Your task to perform on an android device: Do I have any events tomorrow? Image 0: 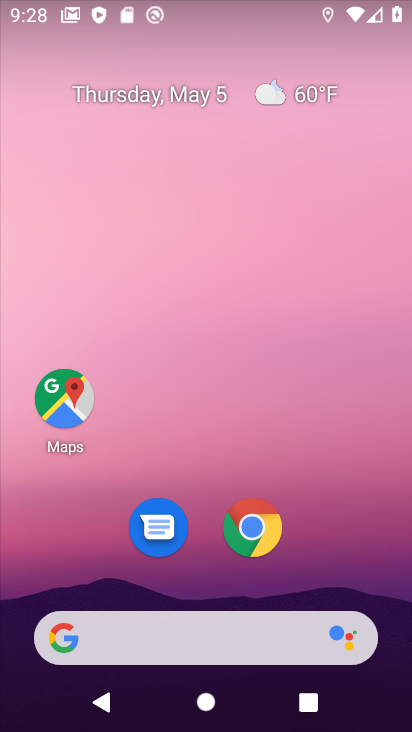
Step 0: press home button
Your task to perform on an android device: Do I have any events tomorrow? Image 1: 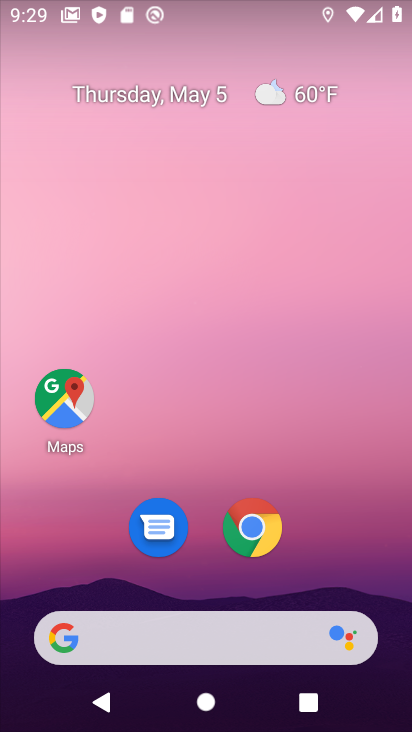
Step 1: drag from (397, 286) to (3, 313)
Your task to perform on an android device: Do I have any events tomorrow? Image 2: 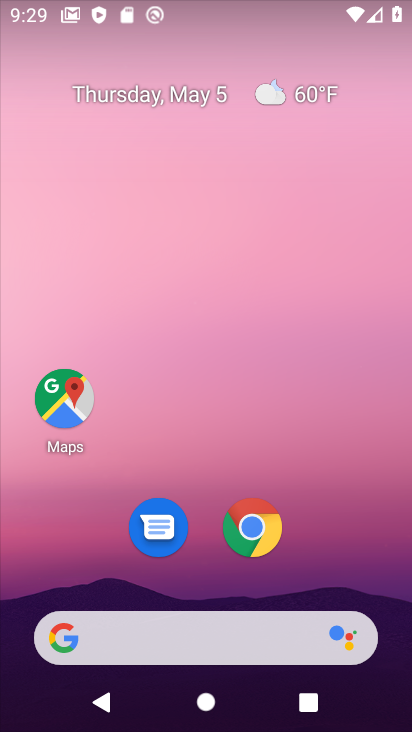
Step 2: drag from (206, 586) to (212, 37)
Your task to perform on an android device: Do I have any events tomorrow? Image 3: 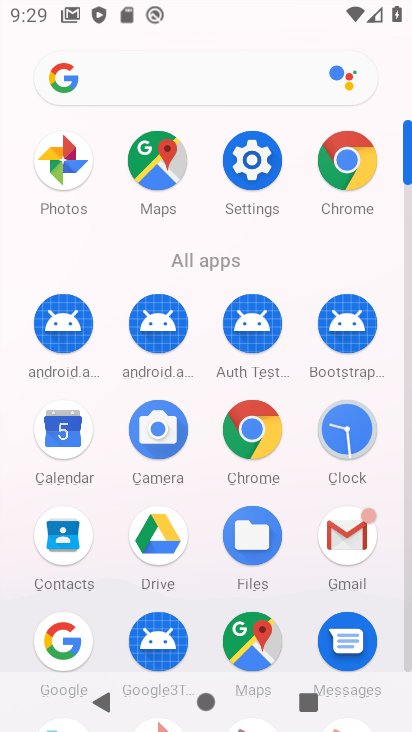
Step 3: click (61, 427)
Your task to perform on an android device: Do I have any events tomorrow? Image 4: 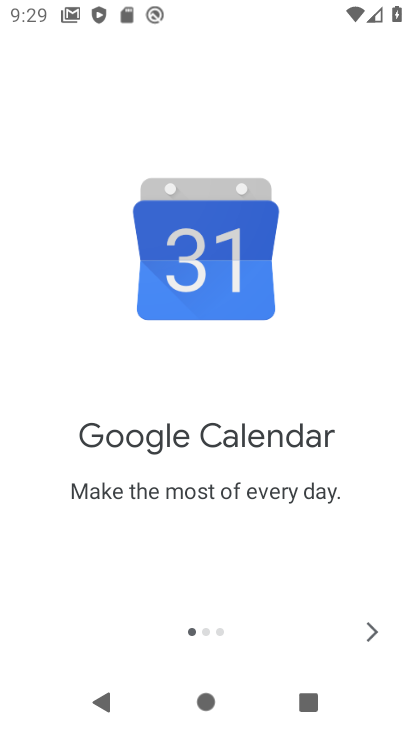
Step 4: click (366, 625)
Your task to perform on an android device: Do I have any events tomorrow? Image 5: 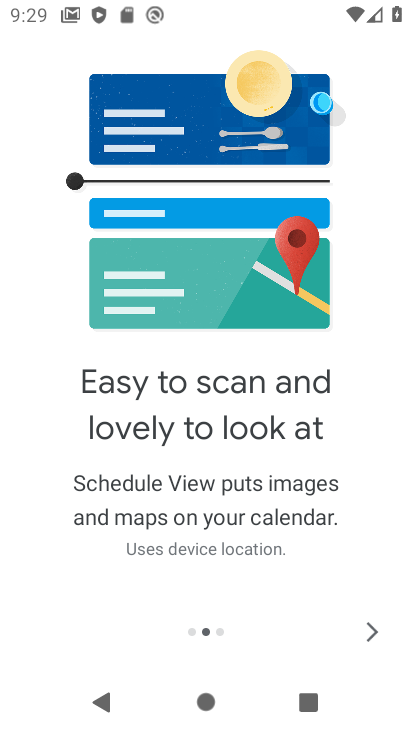
Step 5: click (366, 625)
Your task to perform on an android device: Do I have any events tomorrow? Image 6: 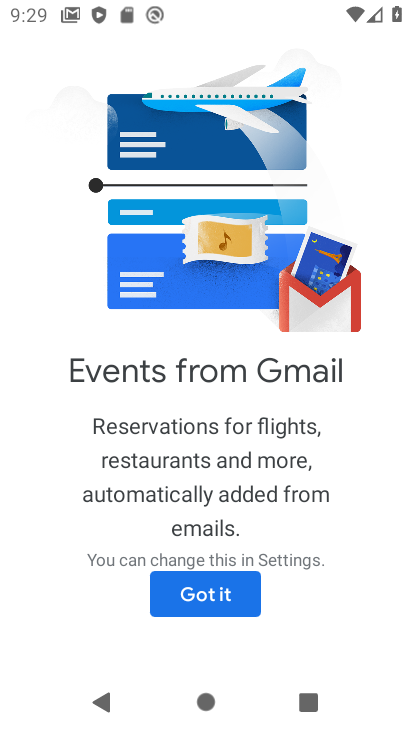
Step 6: click (215, 593)
Your task to perform on an android device: Do I have any events tomorrow? Image 7: 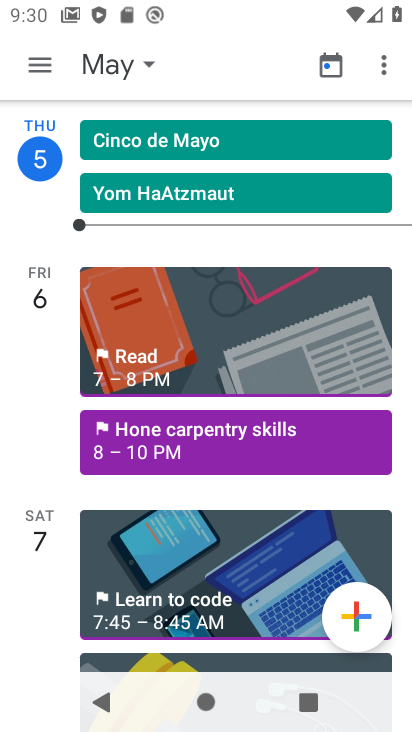
Step 7: click (44, 60)
Your task to perform on an android device: Do I have any events tomorrow? Image 8: 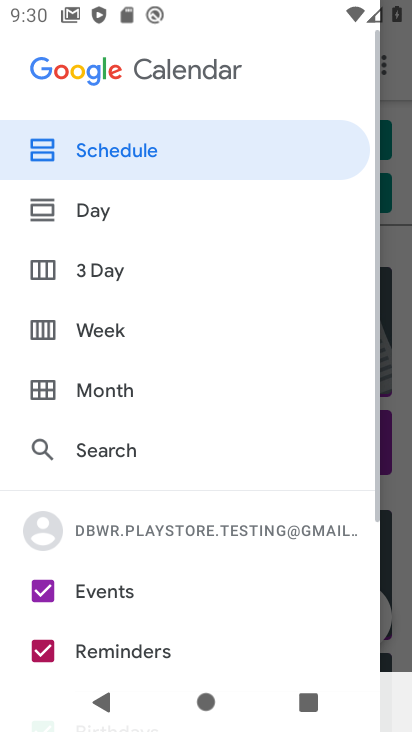
Step 8: click (35, 648)
Your task to perform on an android device: Do I have any events tomorrow? Image 9: 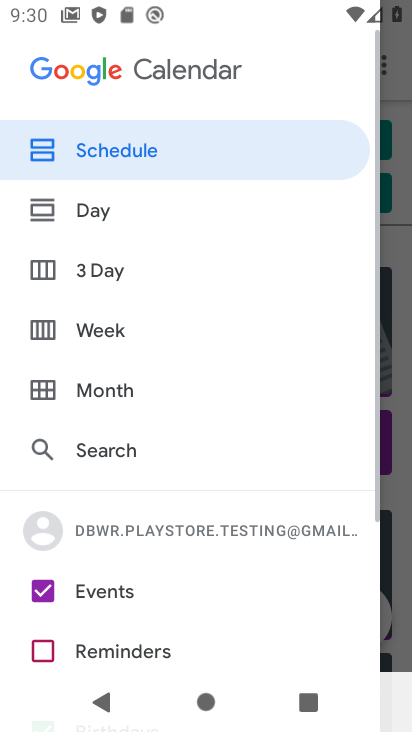
Step 9: drag from (160, 474) to (173, 197)
Your task to perform on an android device: Do I have any events tomorrow? Image 10: 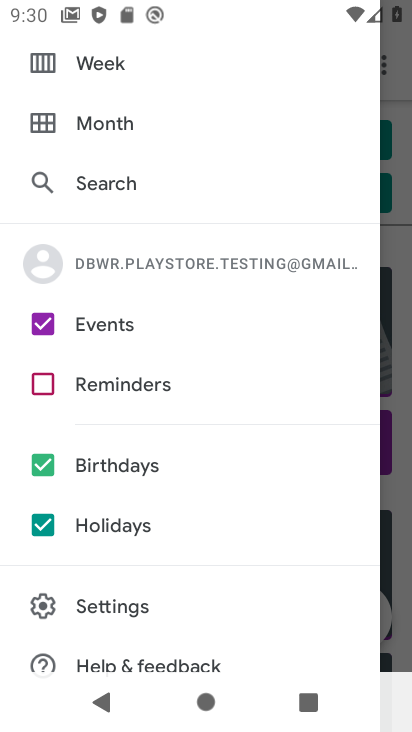
Step 10: click (39, 462)
Your task to perform on an android device: Do I have any events tomorrow? Image 11: 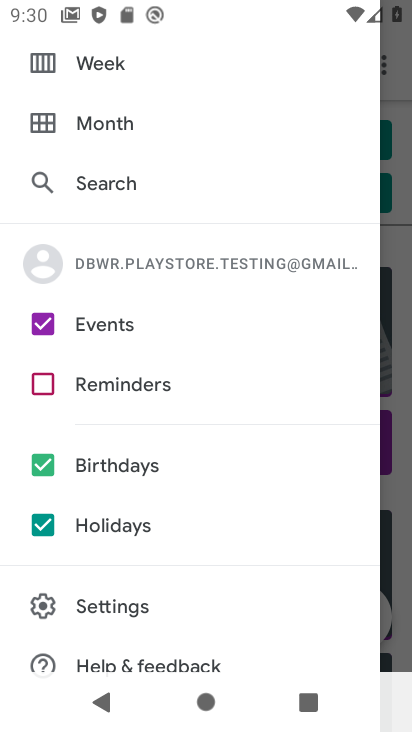
Step 11: click (39, 526)
Your task to perform on an android device: Do I have any events tomorrow? Image 12: 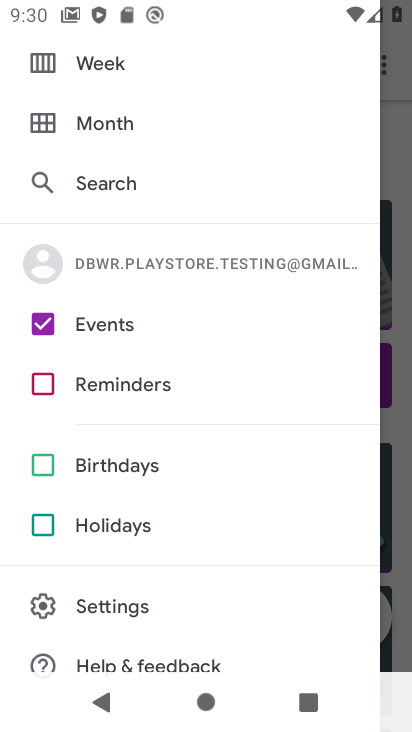
Step 12: drag from (121, 180) to (150, 451)
Your task to perform on an android device: Do I have any events tomorrow? Image 13: 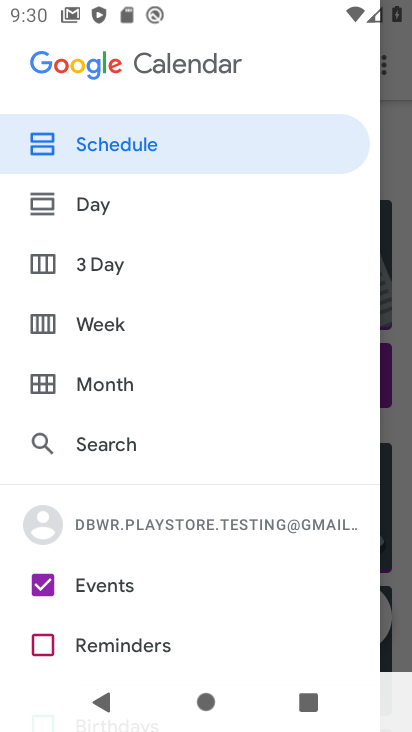
Step 13: click (80, 200)
Your task to perform on an android device: Do I have any events tomorrow? Image 14: 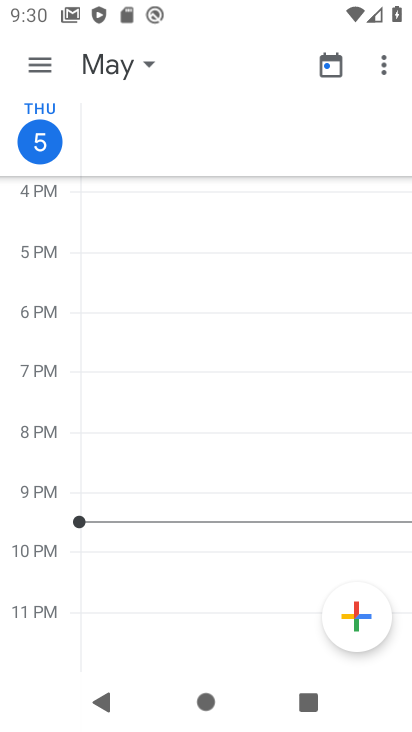
Step 14: click (59, 122)
Your task to perform on an android device: Do I have any events tomorrow? Image 15: 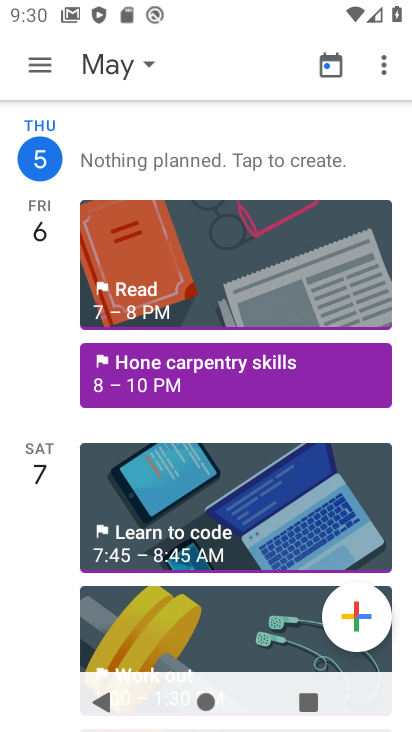
Step 15: click (53, 268)
Your task to perform on an android device: Do I have any events tomorrow? Image 16: 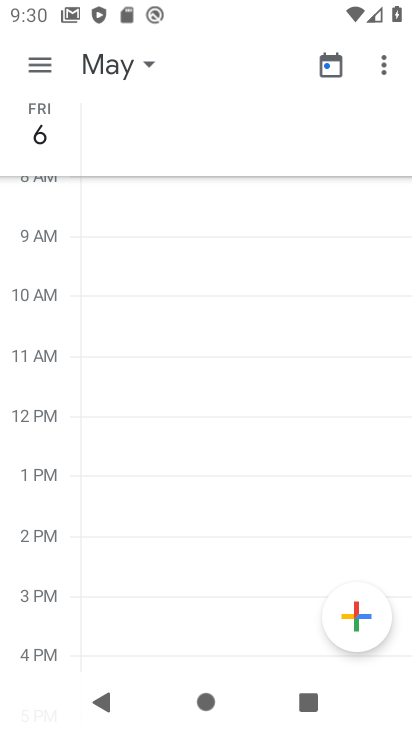
Step 16: task complete